Your task to perform on an android device: toggle notification dots Image 0: 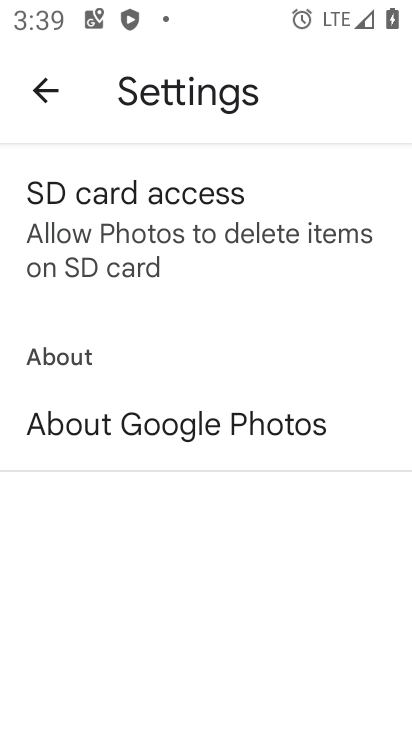
Step 0: press home button
Your task to perform on an android device: toggle notification dots Image 1: 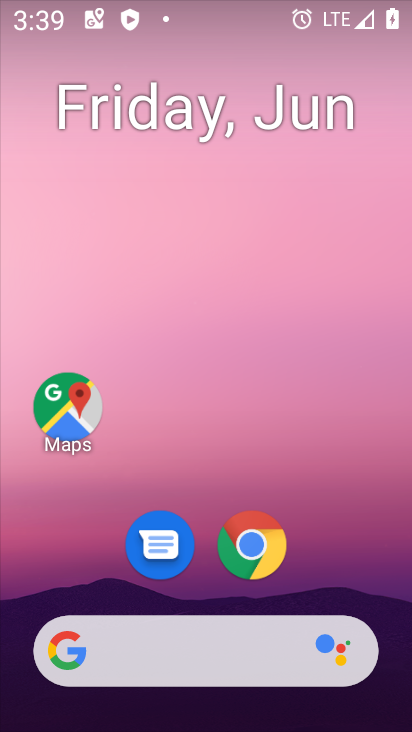
Step 1: drag from (343, 552) to (333, 32)
Your task to perform on an android device: toggle notification dots Image 2: 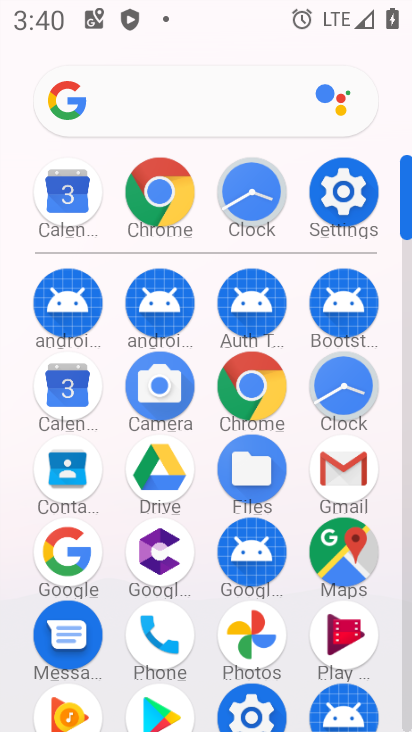
Step 2: click (324, 201)
Your task to perform on an android device: toggle notification dots Image 3: 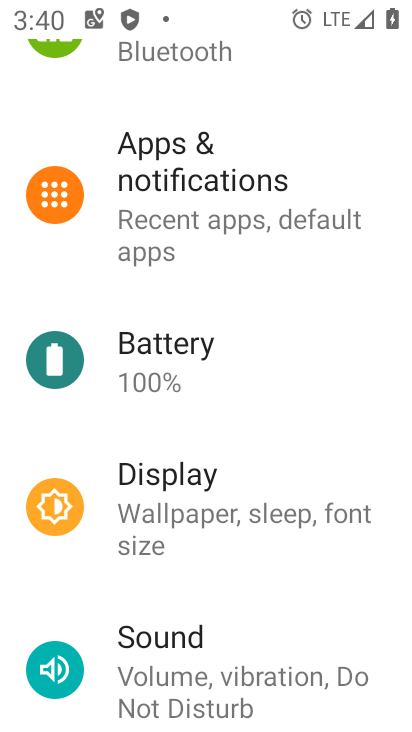
Step 3: click (217, 216)
Your task to perform on an android device: toggle notification dots Image 4: 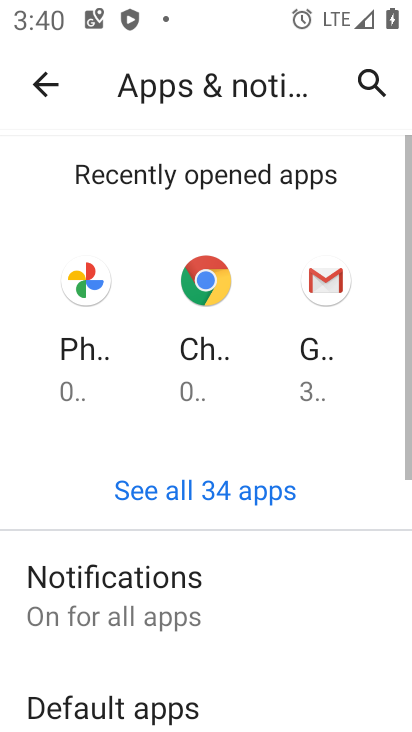
Step 4: click (171, 605)
Your task to perform on an android device: toggle notification dots Image 5: 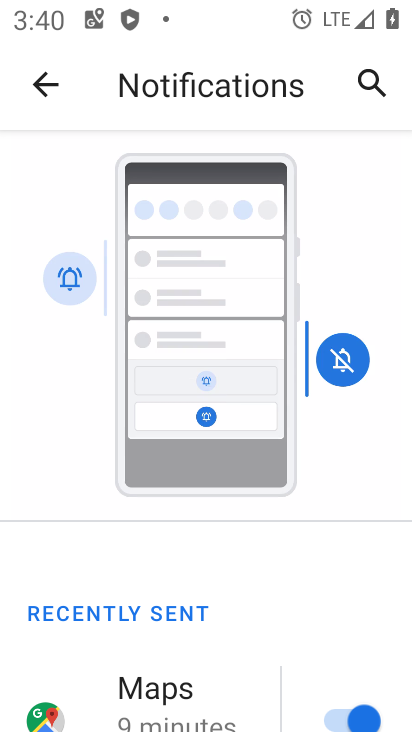
Step 5: drag from (188, 690) to (192, 296)
Your task to perform on an android device: toggle notification dots Image 6: 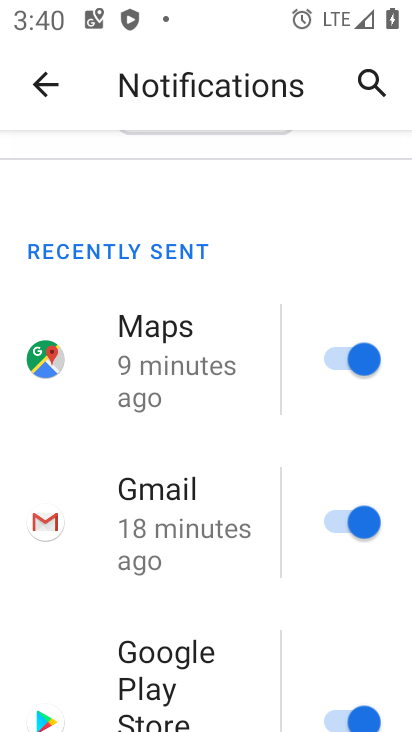
Step 6: drag from (201, 656) to (197, 169)
Your task to perform on an android device: toggle notification dots Image 7: 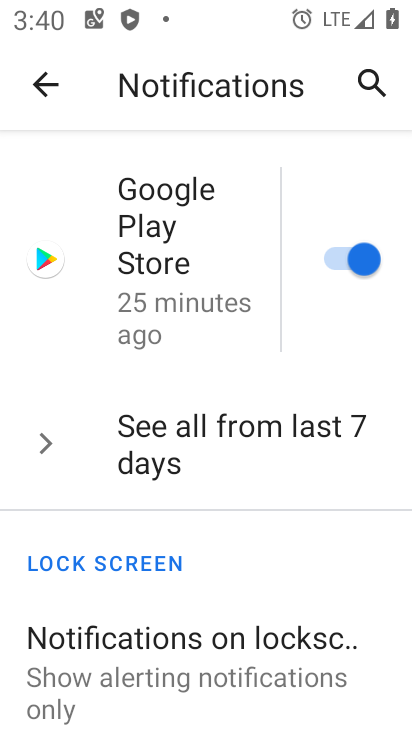
Step 7: drag from (197, 667) to (206, 176)
Your task to perform on an android device: toggle notification dots Image 8: 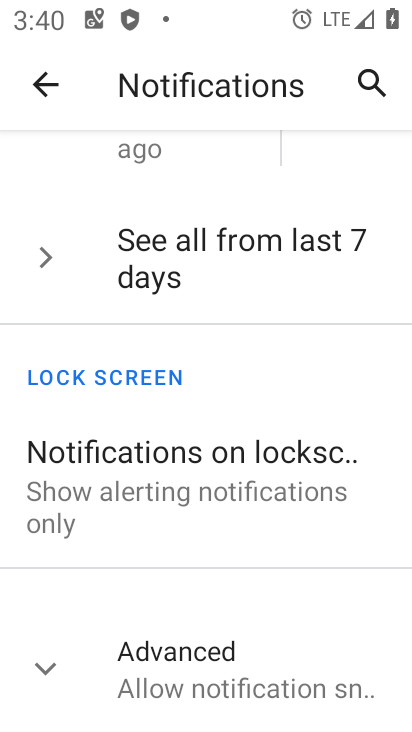
Step 8: click (240, 663)
Your task to perform on an android device: toggle notification dots Image 9: 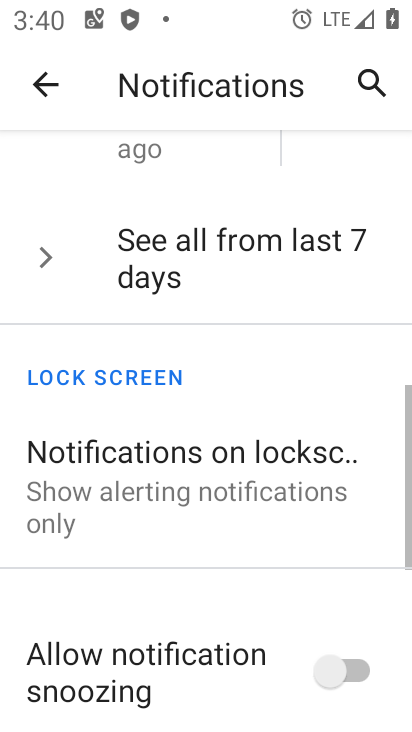
Step 9: drag from (211, 669) to (235, 185)
Your task to perform on an android device: toggle notification dots Image 10: 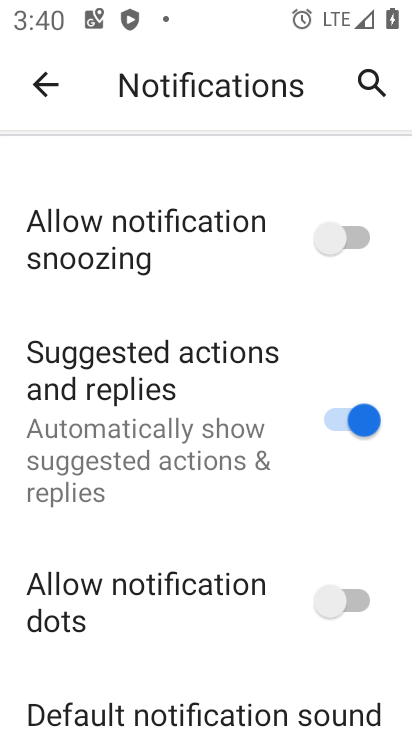
Step 10: click (356, 580)
Your task to perform on an android device: toggle notification dots Image 11: 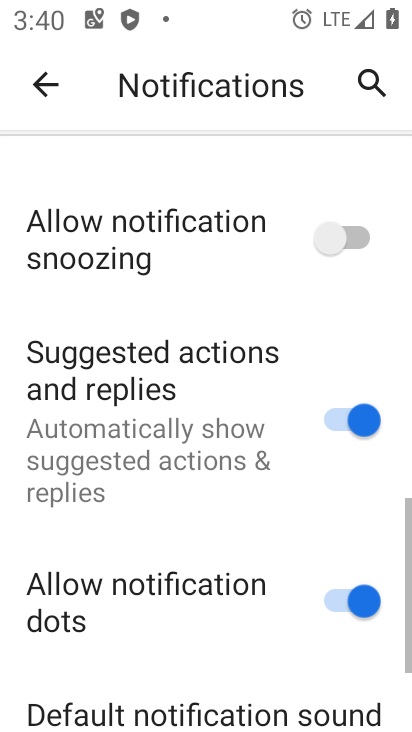
Step 11: task complete